Your task to perform on an android device: Set the phone to "Do not disturb". Image 0: 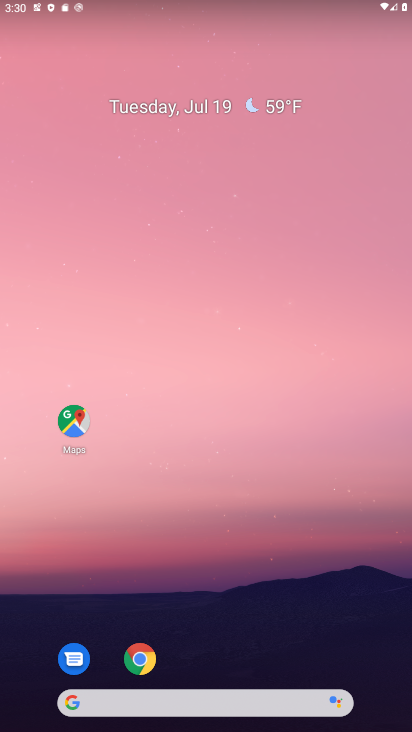
Step 0: drag from (180, 706) to (301, 291)
Your task to perform on an android device: Set the phone to "Do not disturb". Image 1: 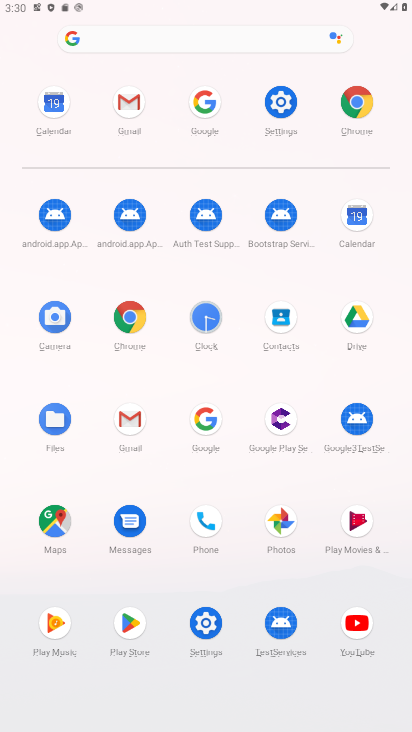
Step 1: click (280, 98)
Your task to perform on an android device: Set the phone to "Do not disturb". Image 2: 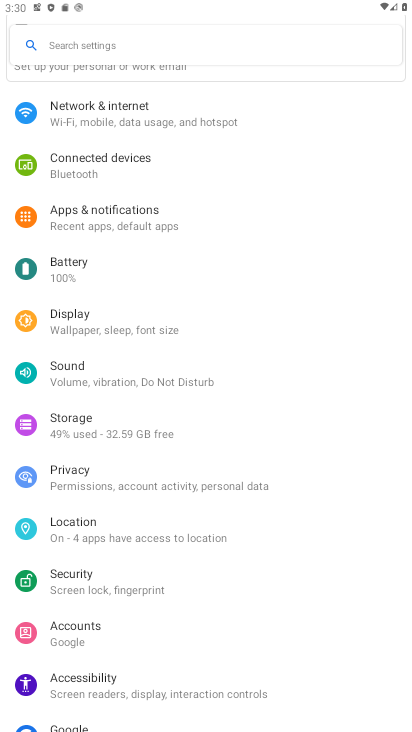
Step 2: click (153, 380)
Your task to perform on an android device: Set the phone to "Do not disturb". Image 3: 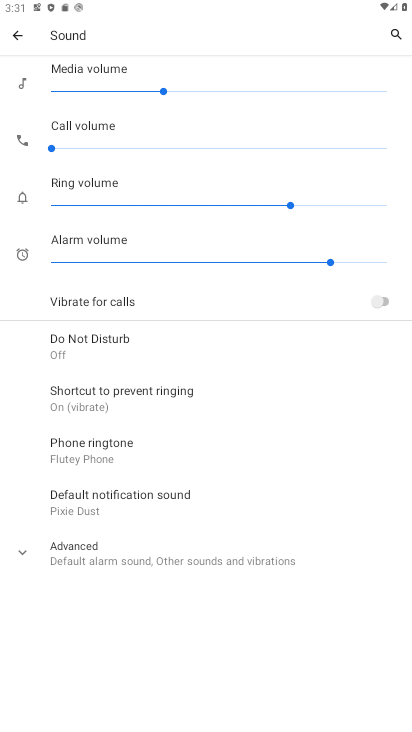
Step 3: click (115, 338)
Your task to perform on an android device: Set the phone to "Do not disturb". Image 4: 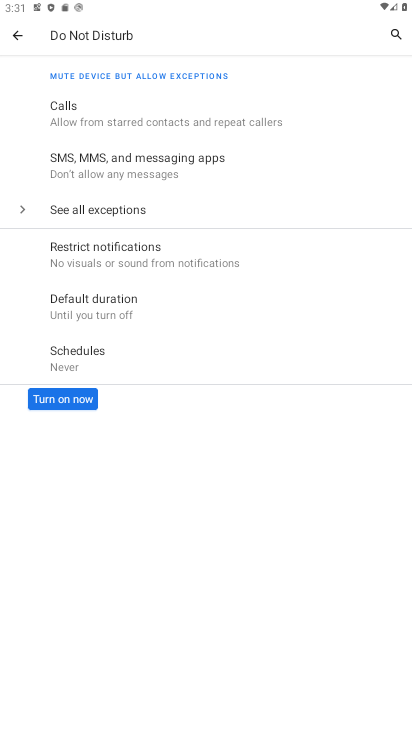
Step 4: click (62, 401)
Your task to perform on an android device: Set the phone to "Do not disturb". Image 5: 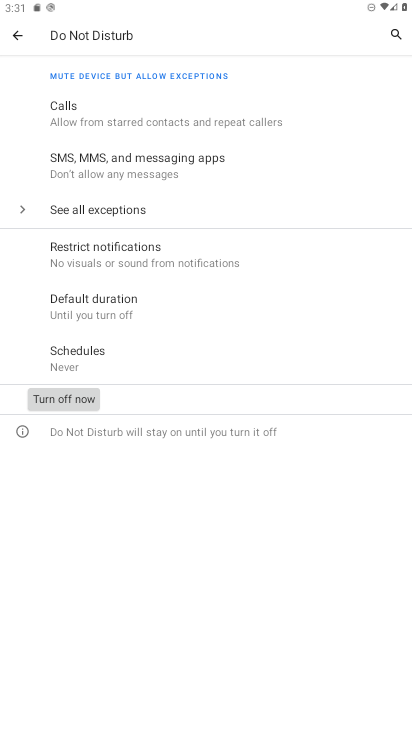
Step 5: task complete